Your task to perform on an android device: open app "Clock" Image 0: 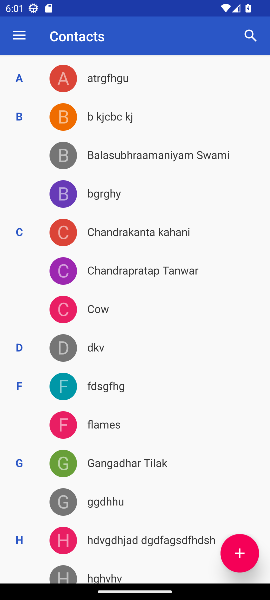
Step 0: press home button
Your task to perform on an android device: open app "Clock" Image 1: 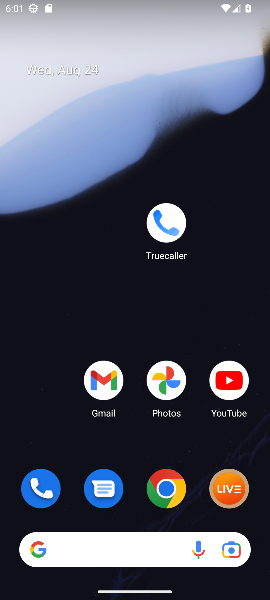
Step 1: drag from (131, 517) to (167, 52)
Your task to perform on an android device: open app "Clock" Image 2: 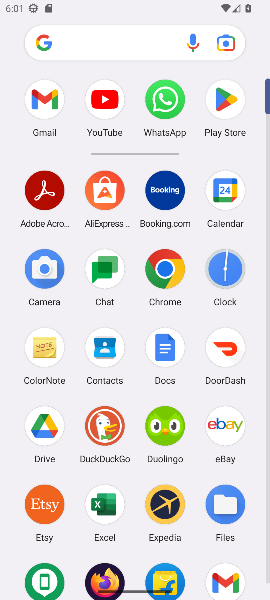
Step 2: drag from (73, 493) to (81, 110)
Your task to perform on an android device: open app "Clock" Image 3: 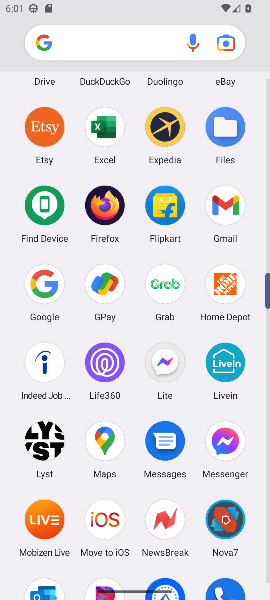
Step 3: drag from (202, 222) to (177, 573)
Your task to perform on an android device: open app "Clock" Image 4: 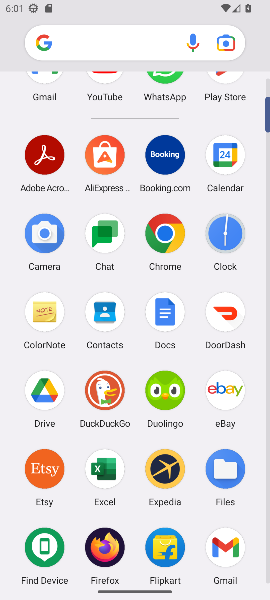
Step 4: drag from (158, 198) to (140, 468)
Your task to perform on an android device: open app "Clock" Image 5: 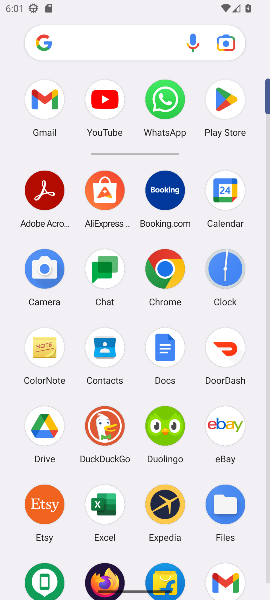
Step 5: click (218, 296)
Your task to perform on an android device: open app "Clock" Image 6: 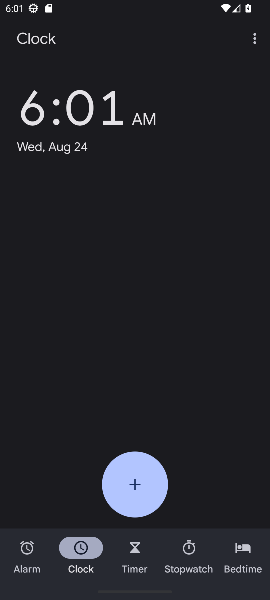
Step 6: task complete